Your task to perform on an android device: Open Google Maps and go to "Timeline" Image 0: 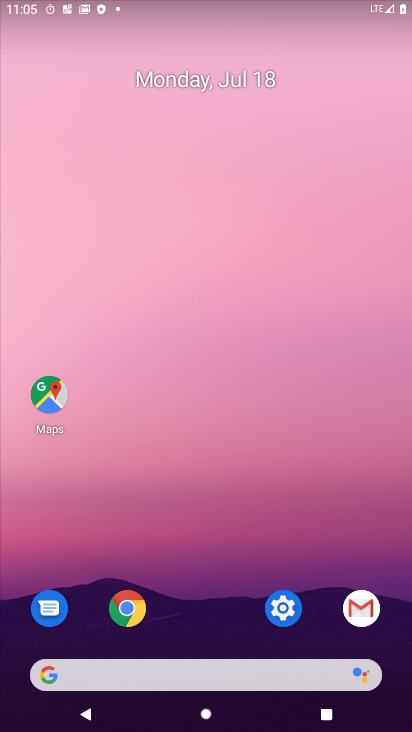
Step 0: click (52, 411)
Your task to perform on an android device: Open Google Maps and go to "Timeline" Image 1: 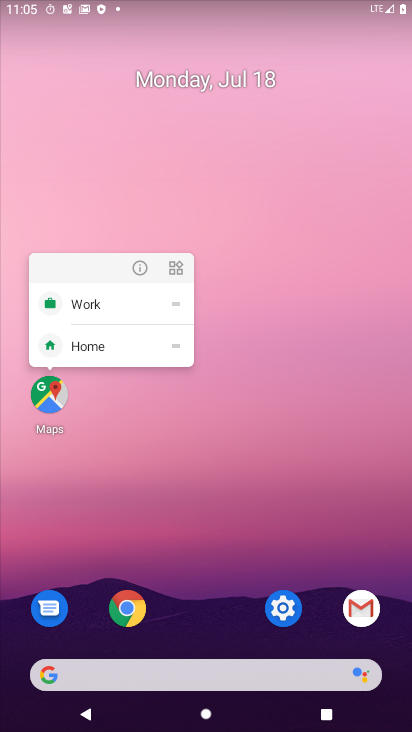
Step 1: click (52, 410)
Your task to perform on an android device: Open Google Maps and go to "Timeline" Image 2: 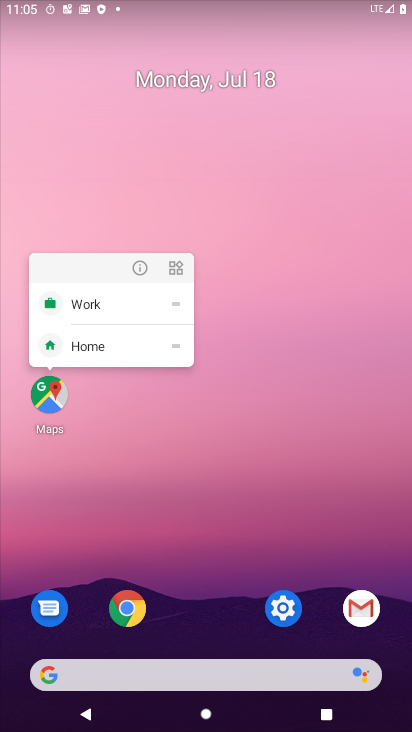
Step 2: click (54, 396)
Your task to perform on an android device: Open Google Maps and go to "Timeline" Image 3: 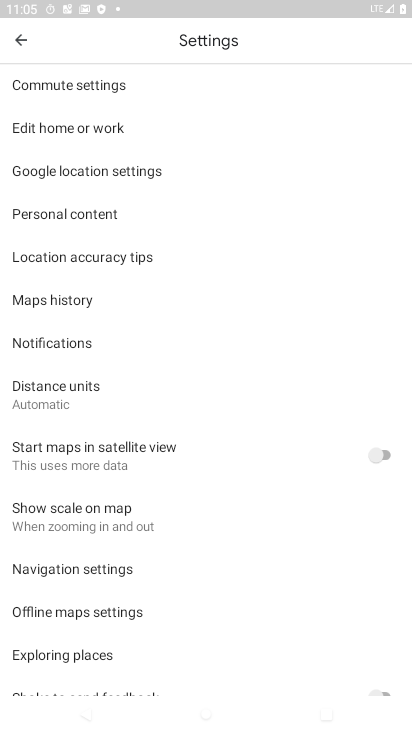
Step 3: click (9, 54)
Your task to perform on an android device: Open Google Maps and go to "Timeline" Image 4: 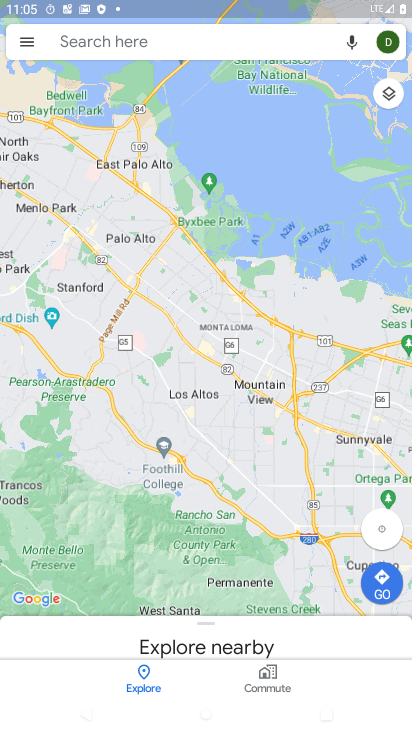
Step 4: click (25, 39)
Your task to perform on an android device: Open Google Maps and go to "Timeline" Image 5: 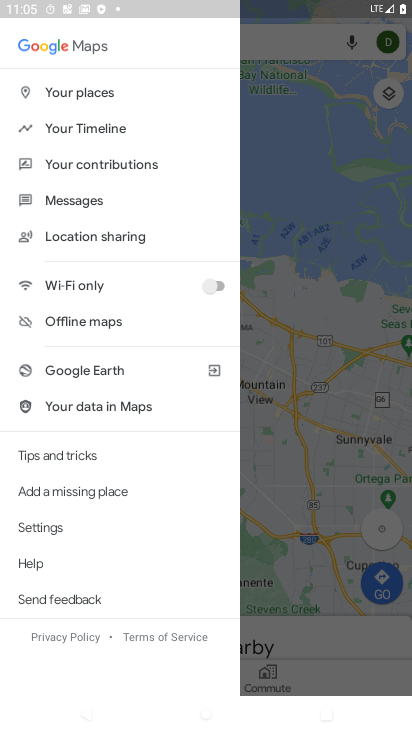
Step 5: click (90, 132)
Your task to perform on an android device: Open Google Maps and go to "Timeline" Image 6: 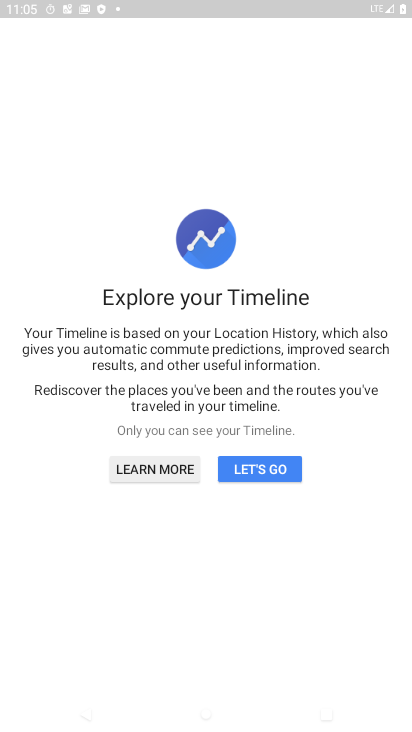
Step 6: click (248, 462)
Your task to perform on an android device: Open Google Maps and go to "Timeline" Image 7: 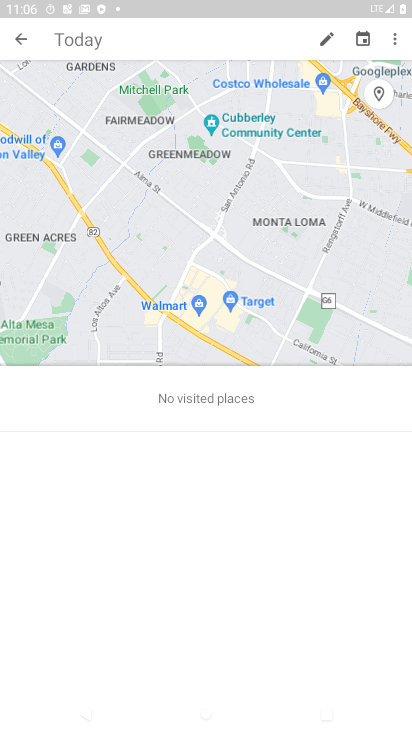
Step 7: task complete